Your task to perform on an android device: Open ESPN.com Image 0: 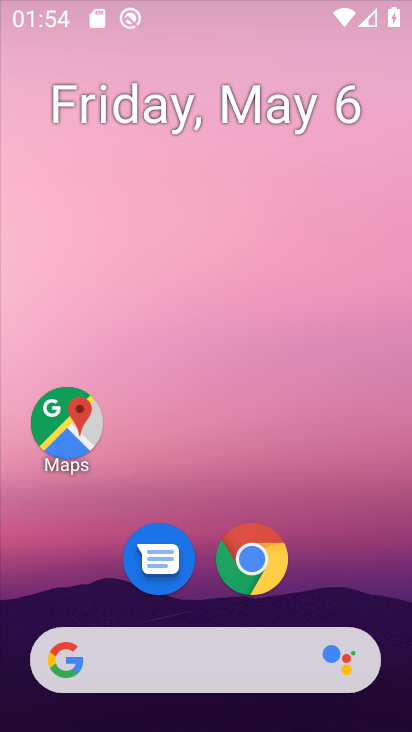
Step 0: drag from (340, 636) to (352, 17)
Your task to perform on an android device: Open ESPN.com Image 1: 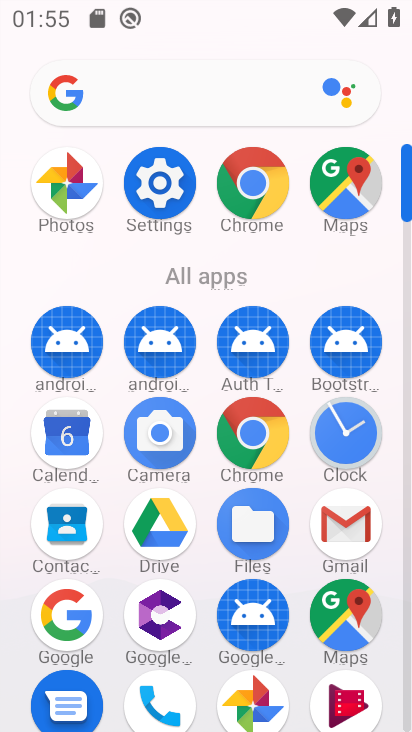
Step 1: click (270, 446)
Your task to perform on an android device: Open ESPN.com Image 2: 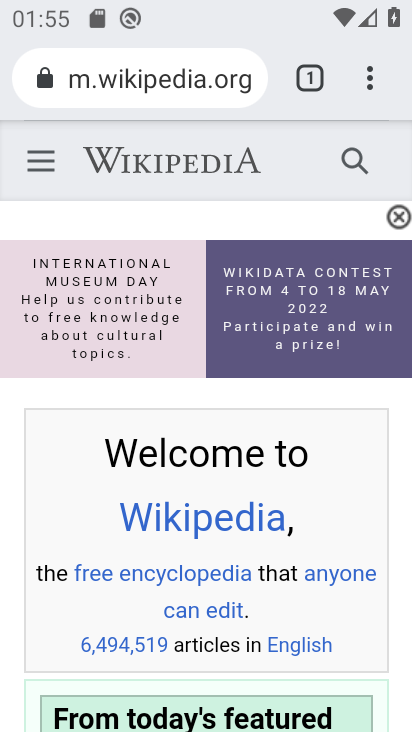
Step 2: click (233, 85)
Your task to perform on an android device: Open ESPN.com Image 3: 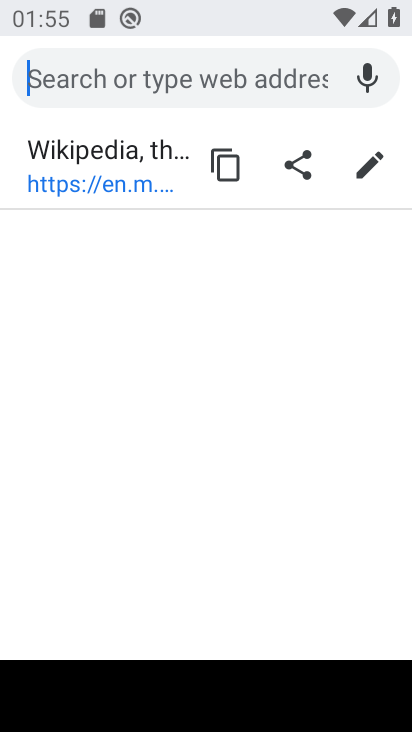
Step 3: type "espn.com"
Your task to perform on an android device: Open ESPN.com Image 4: 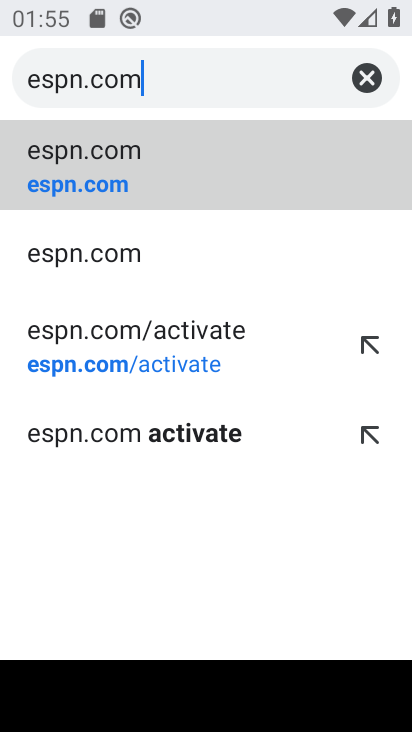
Step 4: click (254, 162)
Your task to perform on an android device: Open ESPN.com Image 5: 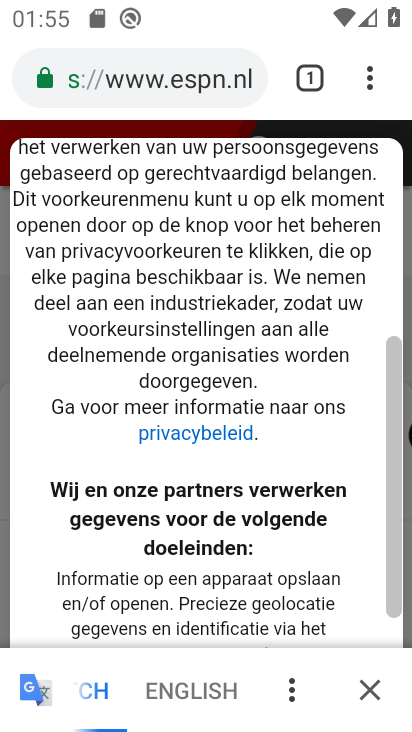
Step 5: task complete